Your task to perform on an android device: Open Yahoo.com Image 0: 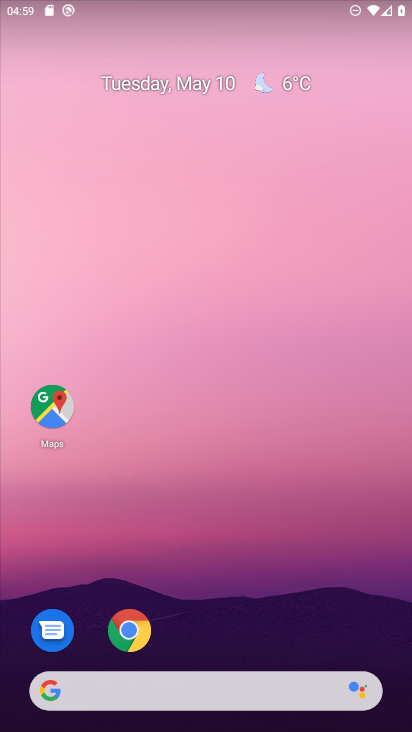
Step 0: click (127, 630)
Your task to perform on an android device: Open Yahoo.com Image 1: 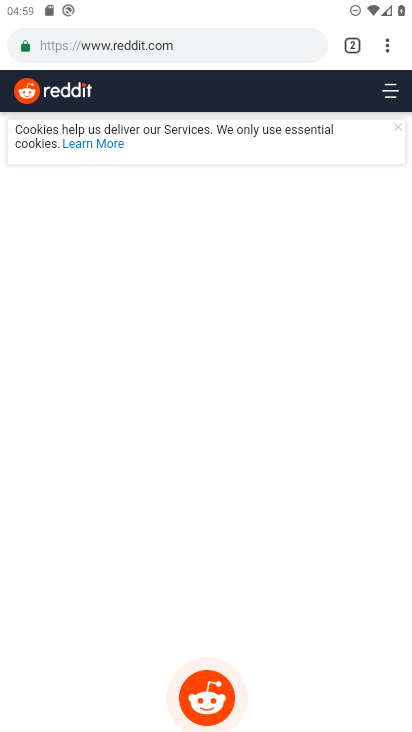
Step 1: click (352, 41)
Your task to perform on an android device: Open Yahoo.com Image 2: 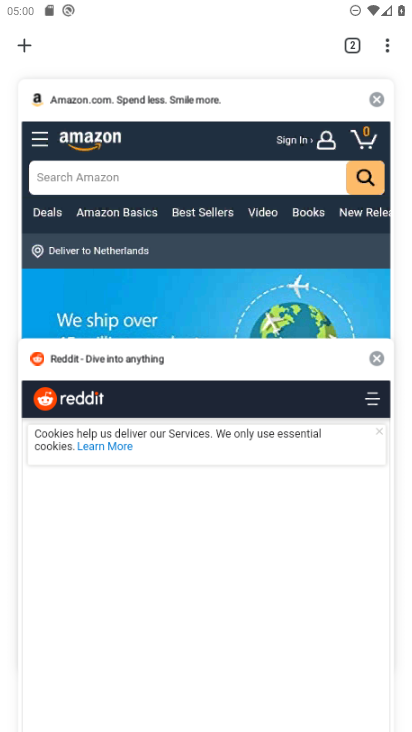
Step 2: click (358, 41)
Your task to perform on an android device: Open Yahoo.com Image 3: 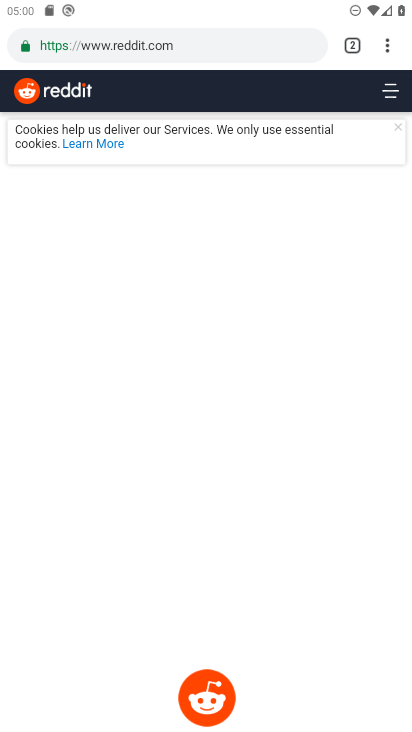
Step 3: click (358, 41)
Your task to perform on an android device: Open Yahoo.com Image 4: 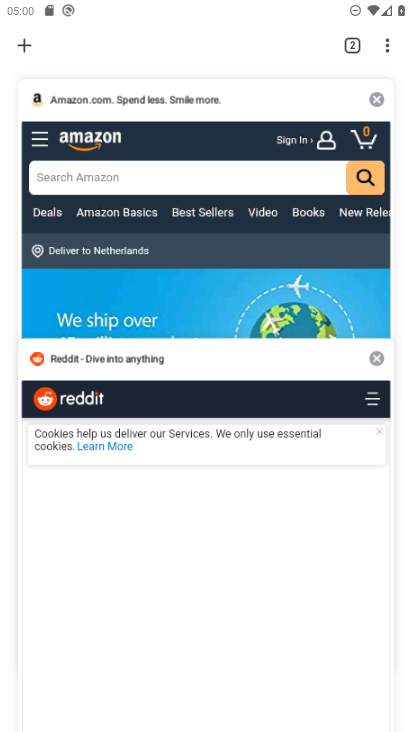
Step 4: click (28, 46)
Your task to perform on an android device: Open Yahoo.com Image 5: 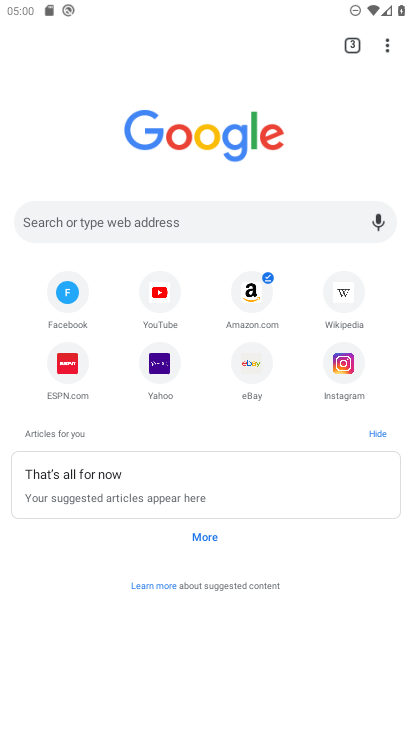
Step 5: click (155, 371)
Your task to perform on an android device: Open Yahoo.com Image 6: 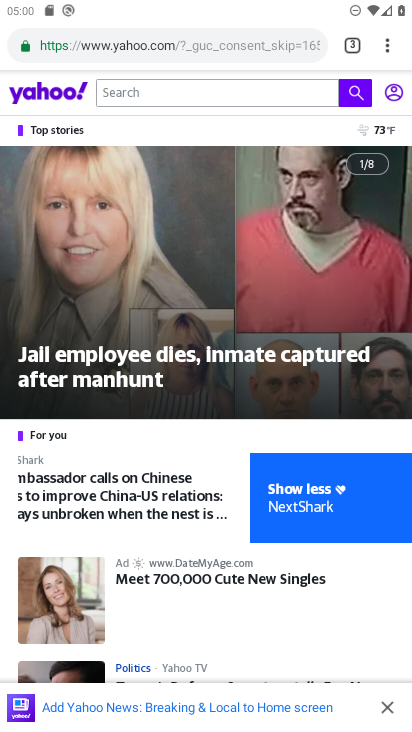
Step 6: task complete